Your task to perform on an android device: Open notification settings Image 0: 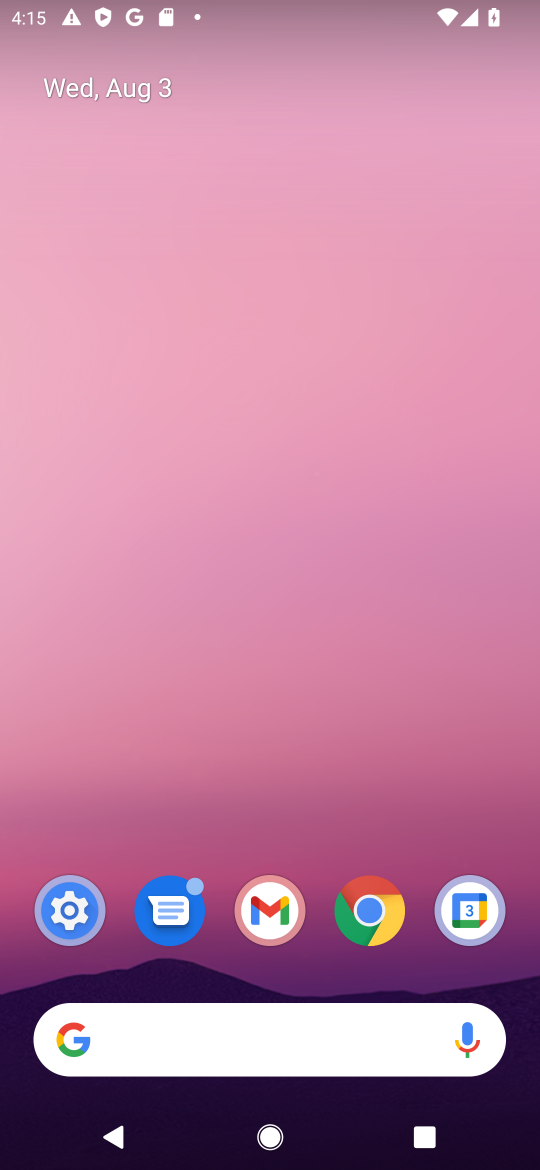
Step 0: click (57, 908)
Your task to perform on an android device: Open notification settings Image 1: 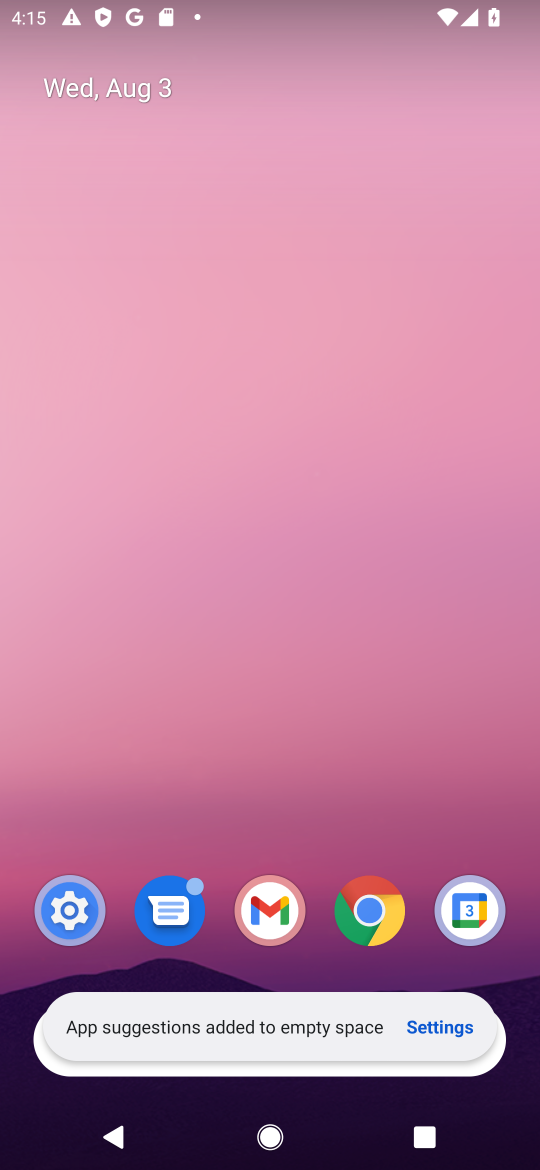
Step 1: click (64, 925)
Your task to perform on an android device: Open notification settings Image 2: 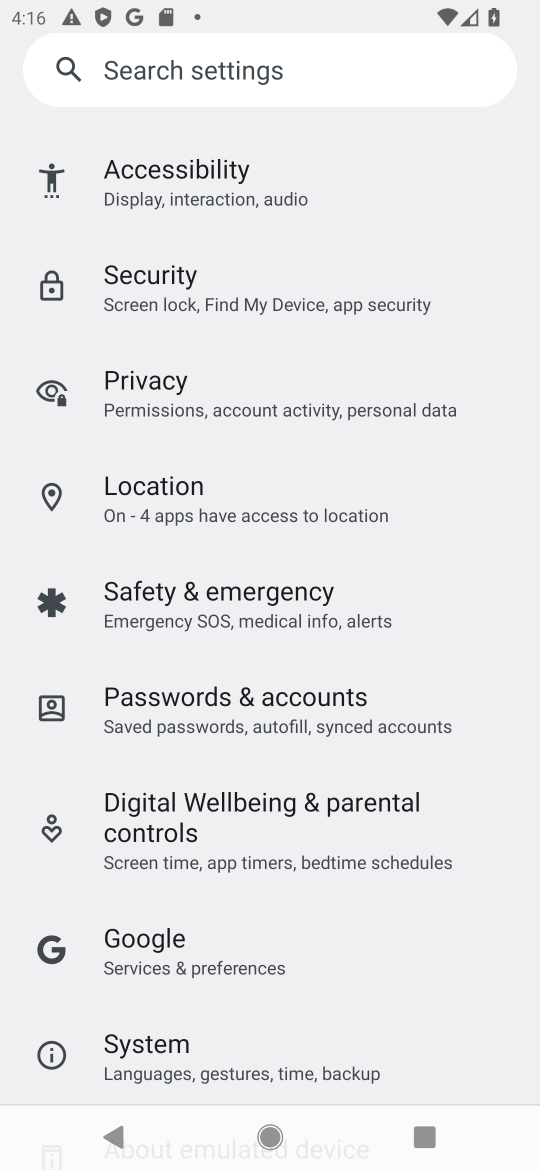
Step 2: drag from (414, 201) to (440, 1167)
Your task to perform on an android device: Open notification settings Image 3: 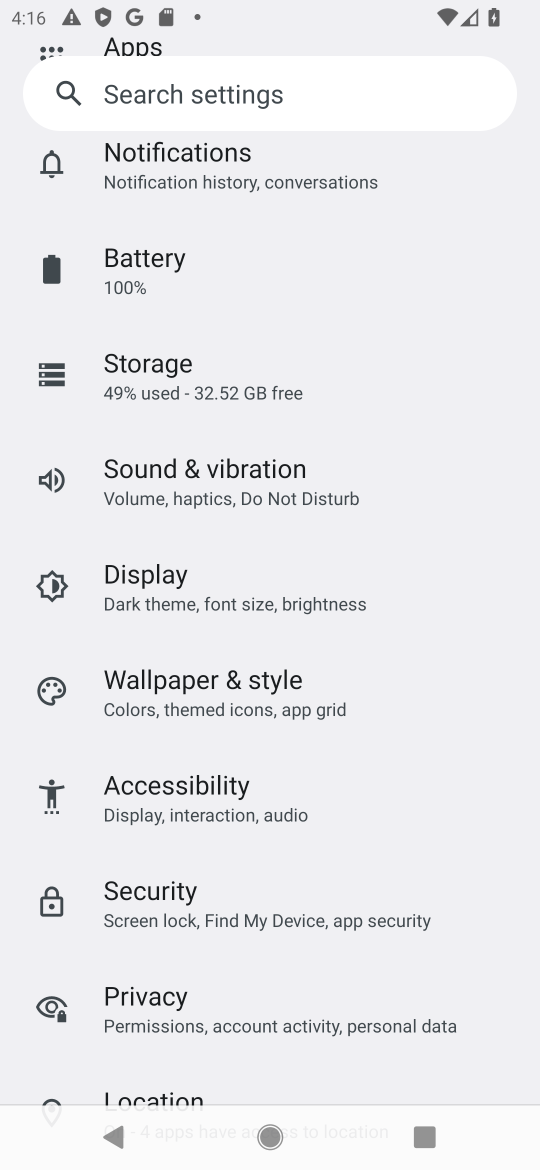
Step 3: click (267, 169)
Your task to perform on an android device: Open notification settings Image 4: 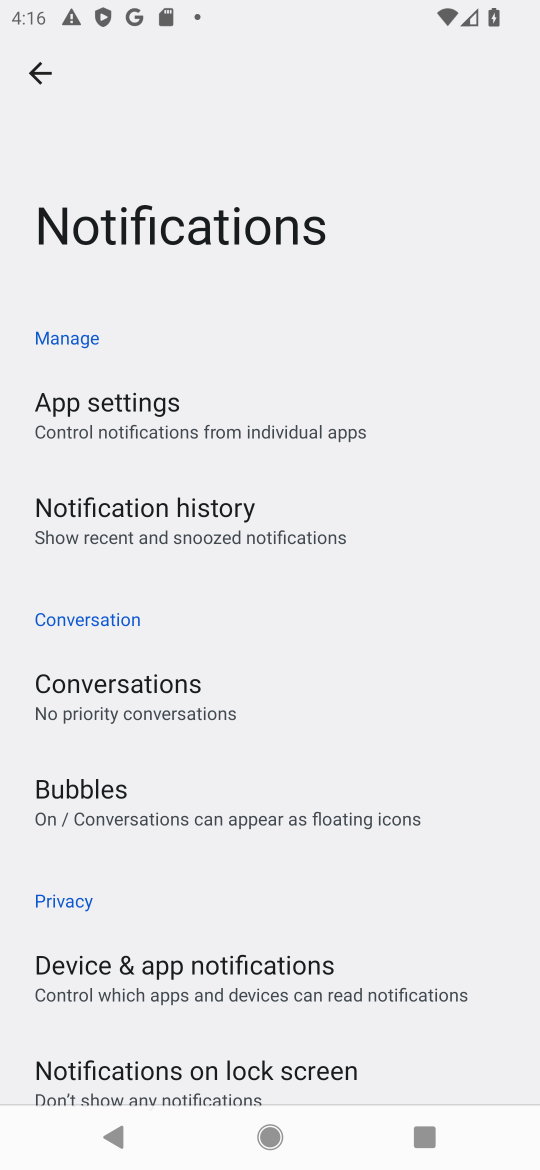
Step 4: task complete